Your task to perform on an android device: When is my next meeting? Image 0: 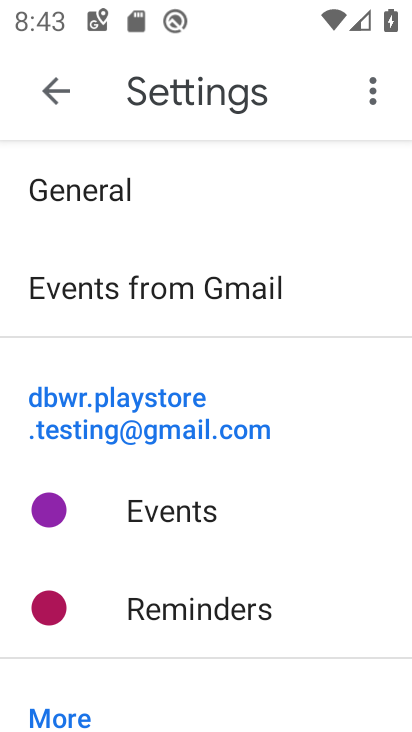
Step 0: press back button
Your task to perform on an android device: When is my next meeting? Image 1: 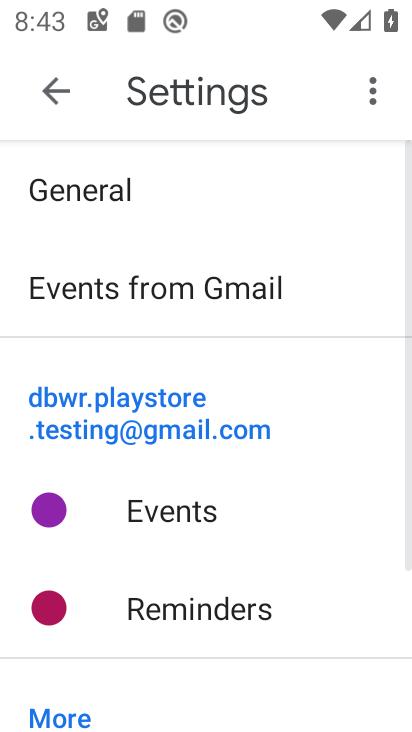
Step 1: press back button
Your task to perform on an android device: When is my next meeting? Image 2: 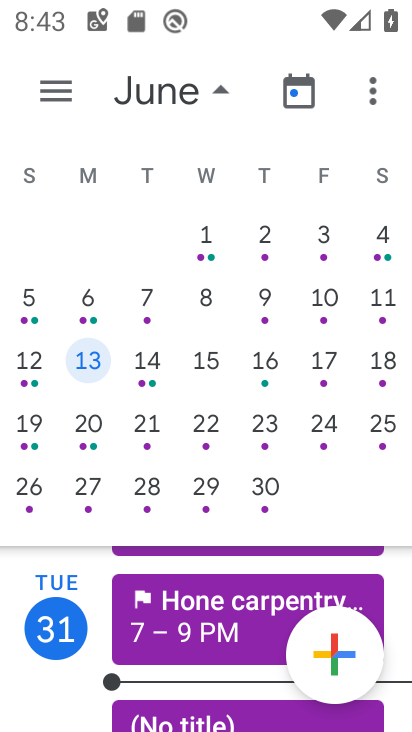
Step 2: press back button
Your task to perform on an android device: When is my next meeting? Image 3: 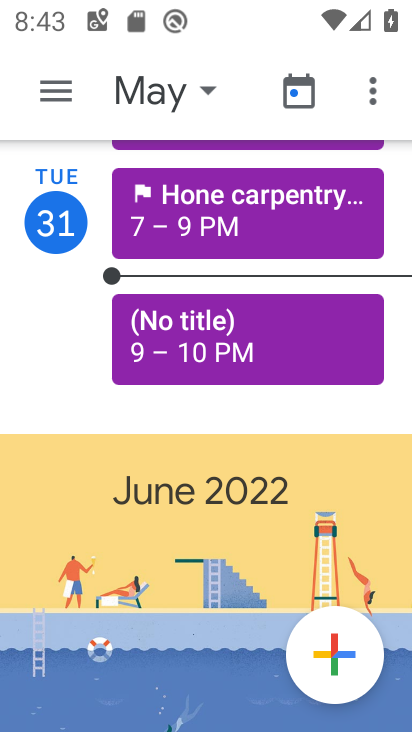
Step 3: drag from (196, 570) to (282, 115)
Your task to perform on an android device: When is my next meeting? Image 4: 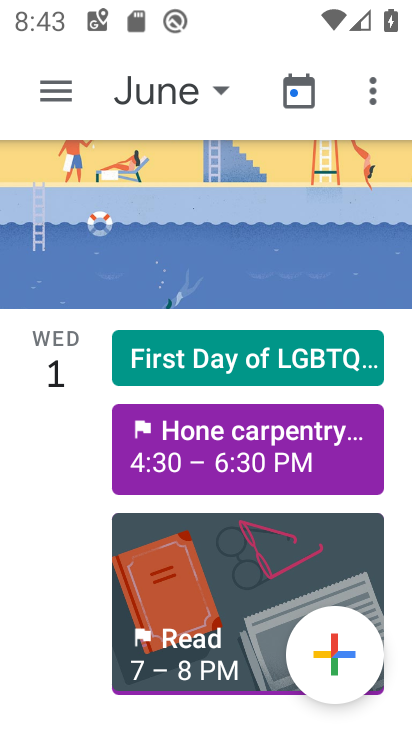
Step 4: drag from (181, 594) to (242, 144)
Your task to perform on an android device: When is my next meeting? Image 5: 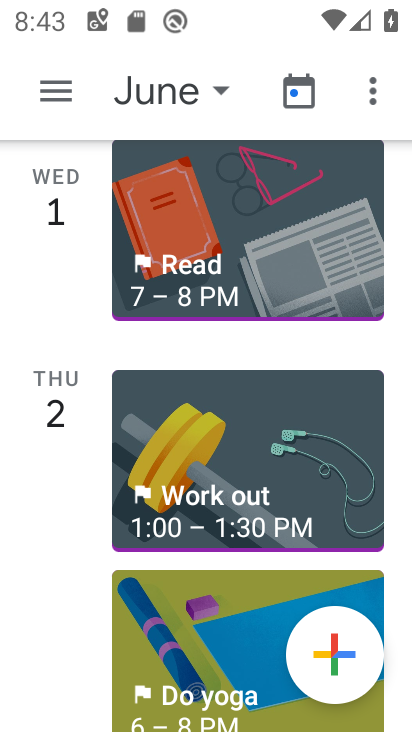
Step 5: drag from (220, 585) to (279, 120)
Your task to perform on an android device: When is my next meeting? Image 6: 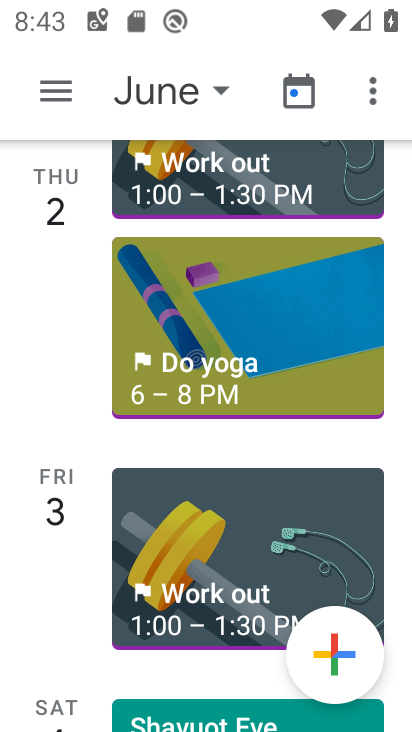
Step 6: drag from (201, 654) to (262, 153)
Your task to perform on an android device: When is my next meeting? Image 7: 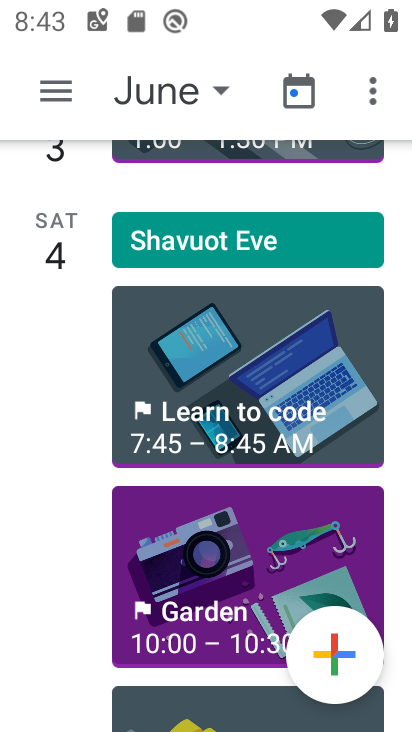
Step 7: drag from (185, 684) to (291, 196)
Your task to perform on an android device: When is my next meeting? Image 8: 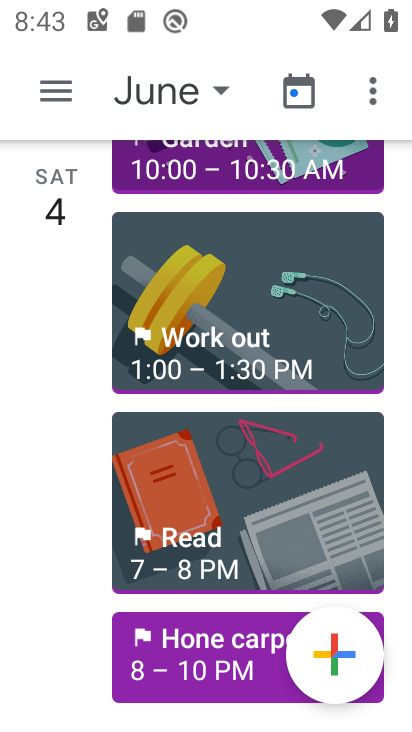
Step 8: drag from (210, 654) to (257, 243)
Your task to perform on an android device: When is my next meeting? Image 9: 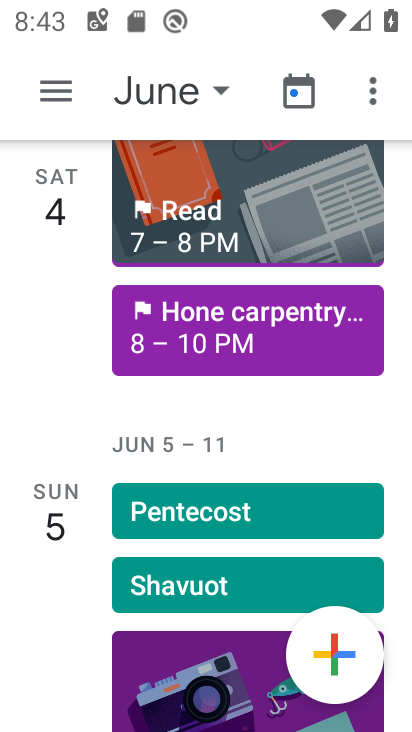
Step 9: drag from (220, 663) to (263, 174)
Your task to perform on an android device: When is my next meeting? Image 10: 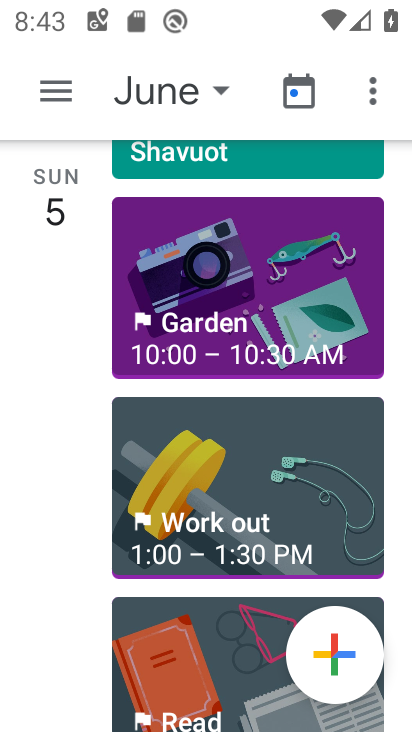
Step 10: drag from (168, 679) to (256, 304)
Your task to perform on an android device: When is my next meeting? Image 11: 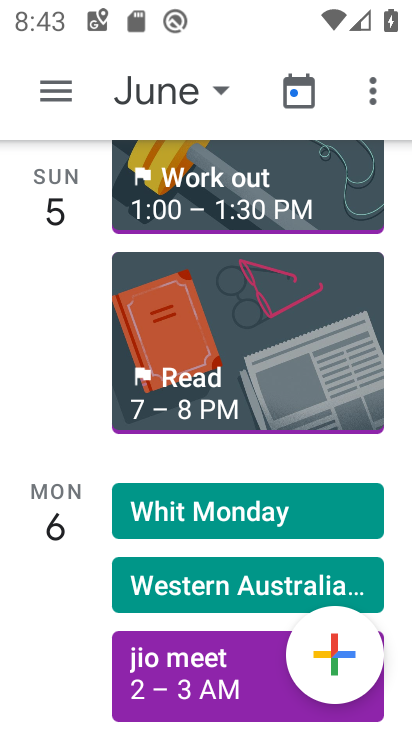
Step 11: click (188, 661)
Your task to perform on an android device: When is my next meeting? Image 12: 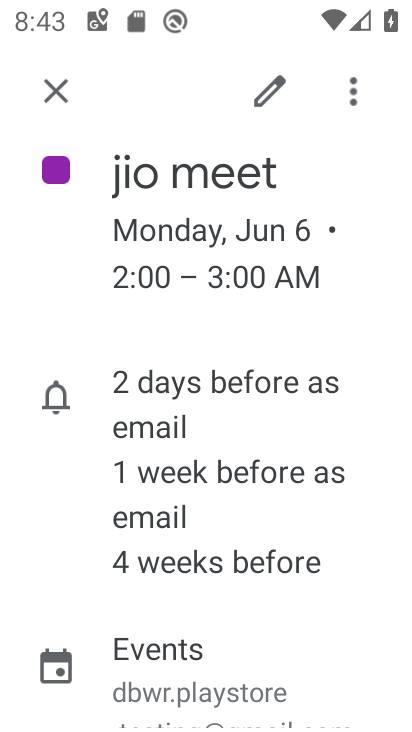
Step 12: task complete